Your task to perform on an android device: Add usb-a to the cart on amazon.com Image 0: 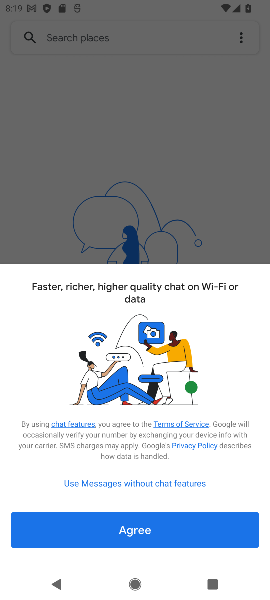
Step 0: press home button
Your task to perform on an android device: Add usb-a to the cart on amazon.com Image 1: 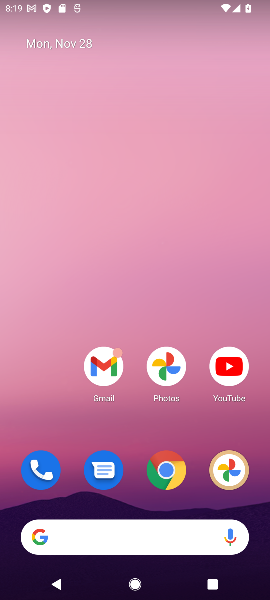
Step 1: click (127, 530)
Your task to perform on an android device: Add usb-a to the cart on amazon.com Image 2: 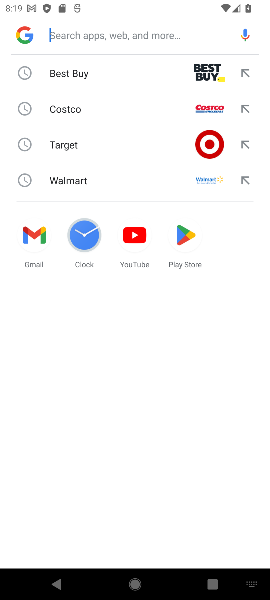
Step 2: type "amazon.com"
Your task to perform on an android device: Add usb-a to the cart on amazon.com Image 3: 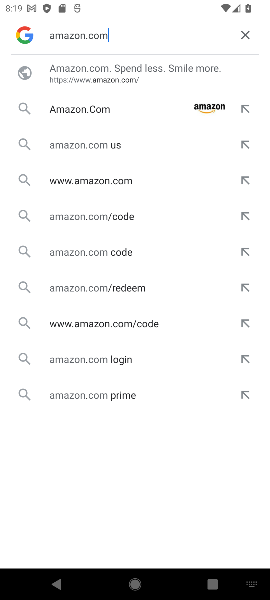
Step 3: click (97, 103)
Your task to perform on an android device: Add usb-a to the cart on amazon.com Image 4: 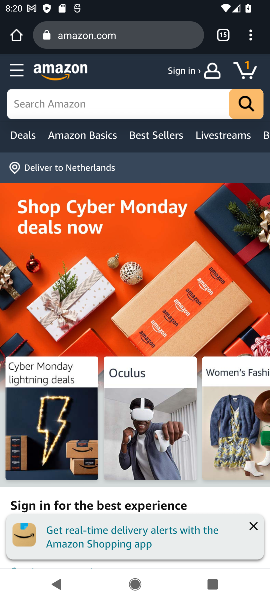
Step 4: click (102, 106)
Your task to perform on an android device: Add usb-a to the cart on amazon.com Image 5: 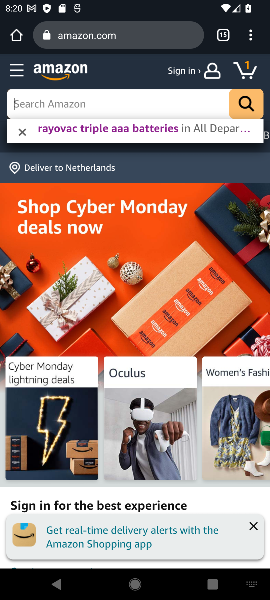
Step 5: type "usb-a"
Your task to perform on an android device: Add usb-a to the cart on amazon.com Image 6: 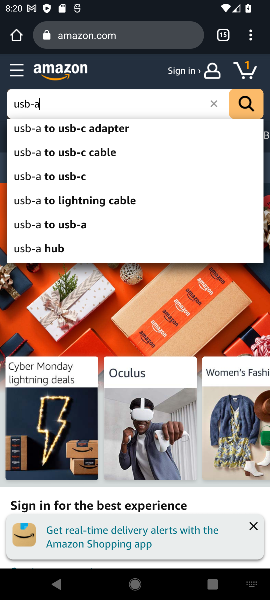
Step 6: click (97, 131)
Your task to perform on an android device: Add usb-a to the cart on amazon.com Image 7: 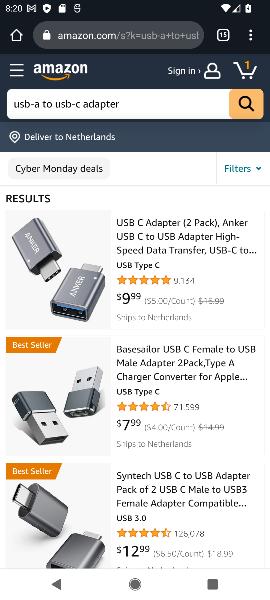
Step 7: click (147, 222)
Your task to perform on an android device: Add usb-a to the cart on amazon.com Image 8: 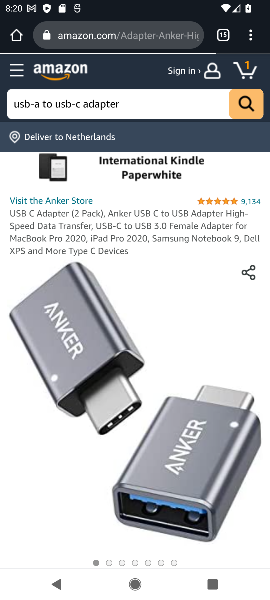
Step 8: drag from (128, 491) to (131, 311)
Your task to perform on an android device: Add usb-a to the cart on amazon.com Image 9: 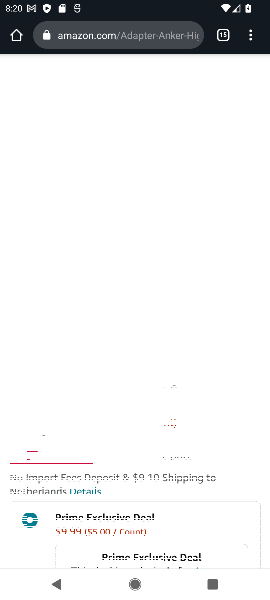
Step 9: drag from (187, 490) to (186, 314)
Your task to perform on an android device: Add usb-a to the cart on amazon.com Image 10: 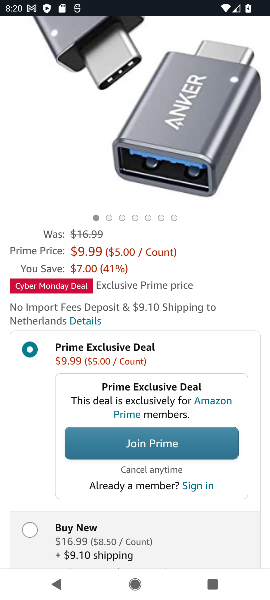
Step 10: drag from (85, 502) to (87, 347)
Your task to perform on an android device: Add usb-a to the cart on amazon.com Image 11: 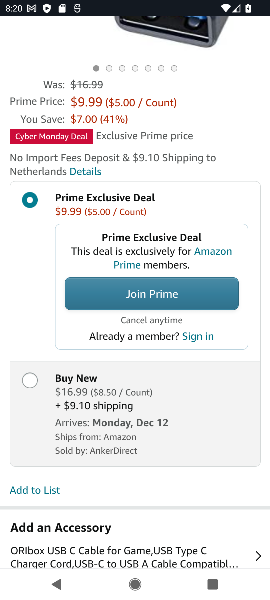
Step 11: drag from (77, 506) to (86, 311)
Your task to perform on an android device: Add usb-a to the cart on amazon.com Image 12: 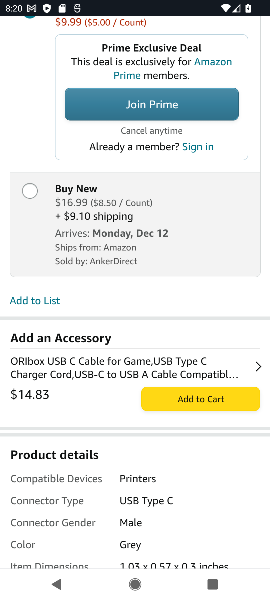
Step 12: click (169, 399)
Your task to perform on an android device: Add usb-a to the cart on amazon.com Image 13: 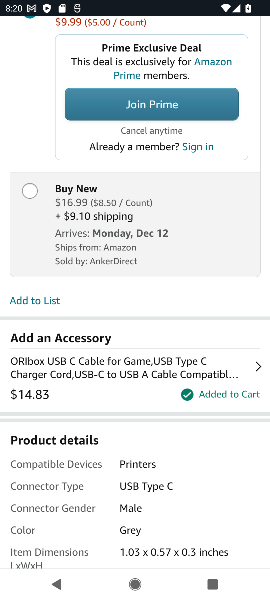
Step 13: task complete